Your task to perform on an android device: Open internet settings Image 0: 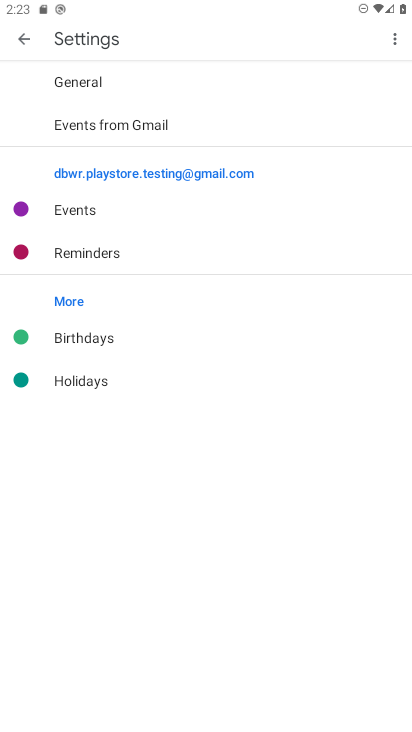
Step 0: press home button
Your task to perform on an android device: Open internet settings Image 1: 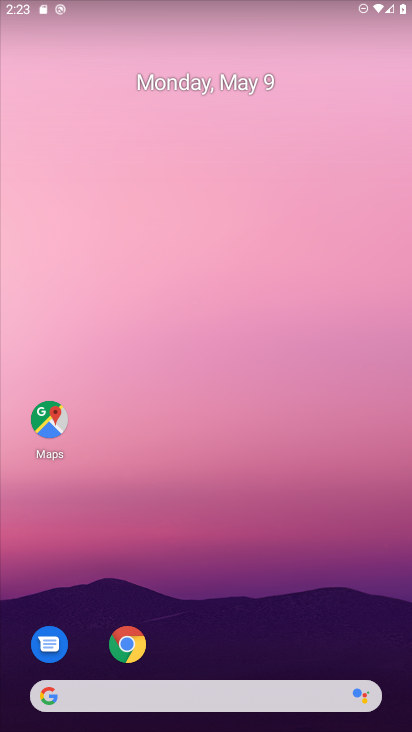
Step 1: drag from (187, 650) to (170, 120)
Your task to perform on an android device: Open internet settings Image 2: 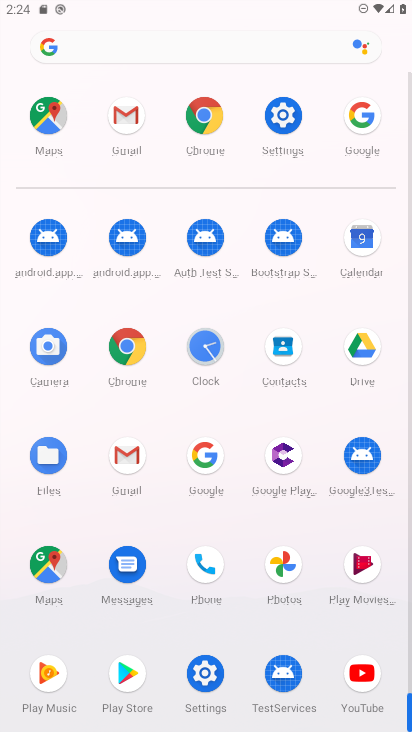
Step 2: click (202, 681)
Your task to perform on an android device: Open internet settings Image 3: 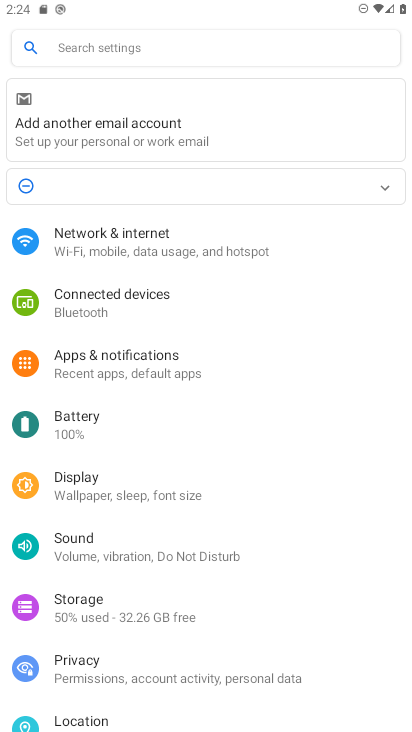
Step 3: click (120, 270)
Your task to perform on an android device: Open internet settings Image 4: 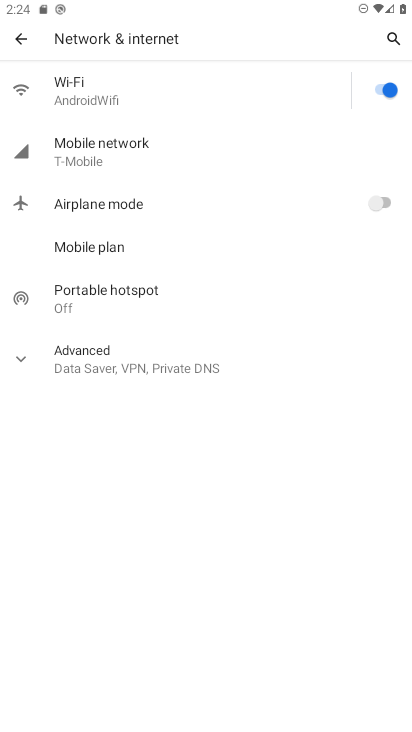
Step 4: click (89, 164)
Your task to perform on an android device: Open internet settings Image 5: 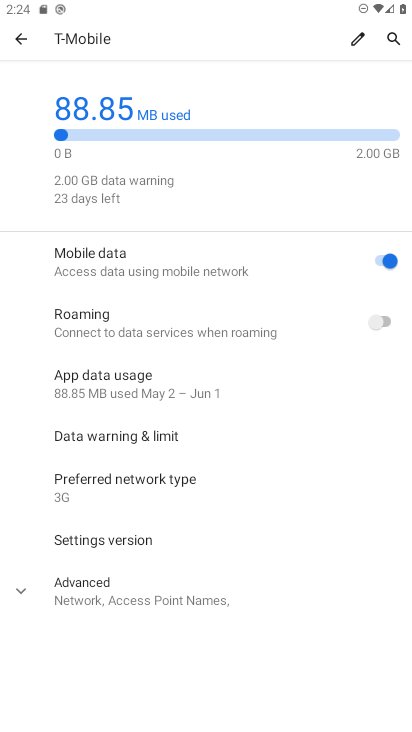
Step 5: task complete